Your task to perform on an android device: turn on showing notifications on the lock screen Image 0: 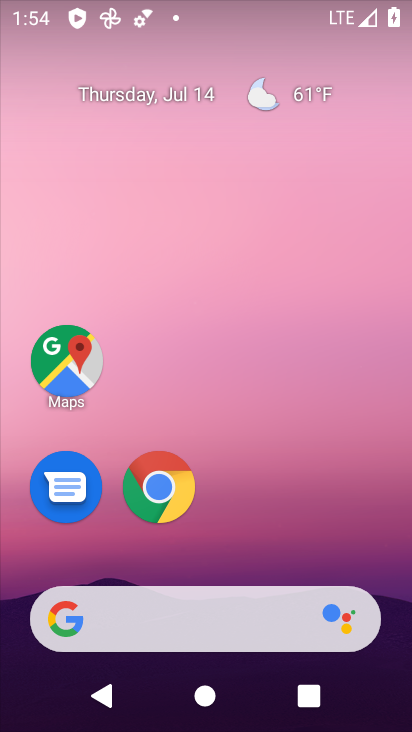
Step 0: drag from (372, 552) to (371, 160)
Your task to perform on an android device: turn on showing notifications on the lock screen Image 1: 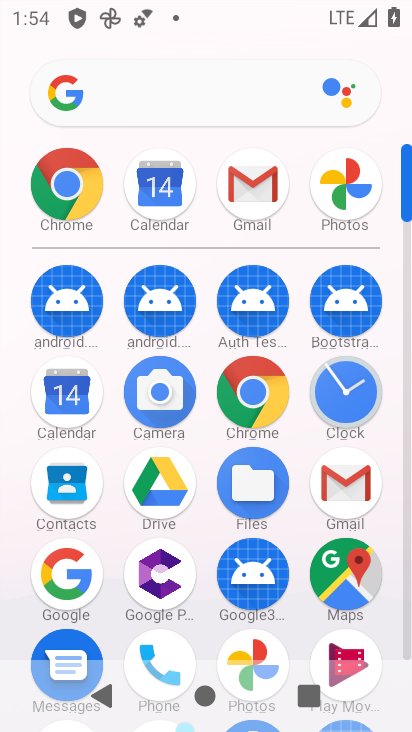
Step 1: drag from (388, 517) to (391, 211)
Your task to perform on an android device: turn on showing notifications on the lock screen Image 2: 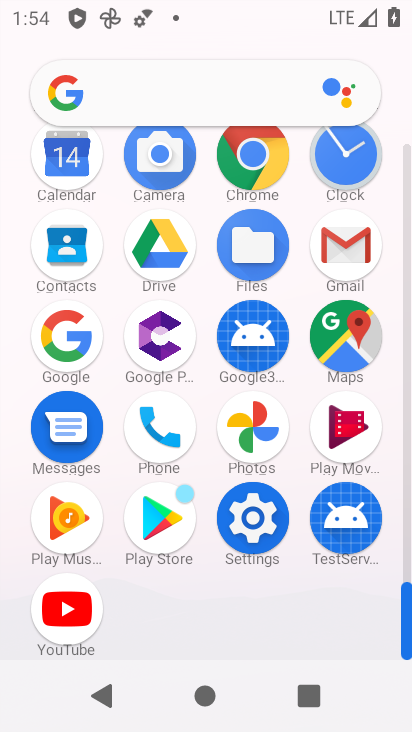
Step 2: click (252, 516)
Your task to perform on an android device: turn on showing notifications on the lock screen Image 3: 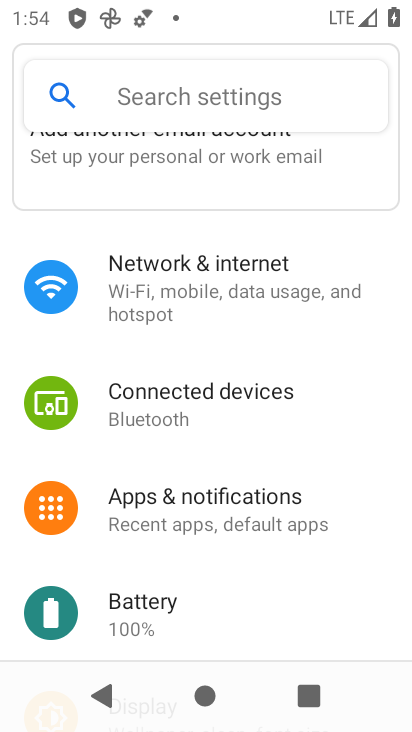
Step 3: drag from (323, 596) to (332, 471)
Your task to perform on an android device: turn on showing notifications on the lock screen Image 4: 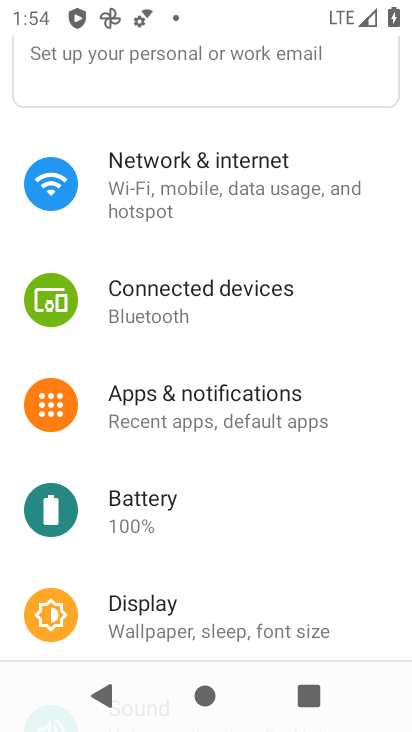
Step 4: drag from (346, 543) to (354, 442)
Your task to perform on an android device: turn on showing notifications on the lock screen Image 5: 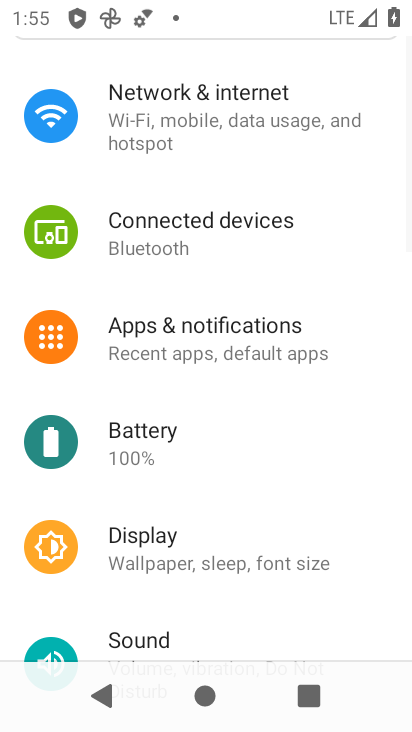
Step 5: drag from (361, 506) to (360, 420)
Your task to perform on an android device: turn on showing notifications on the lock screen Image 6: 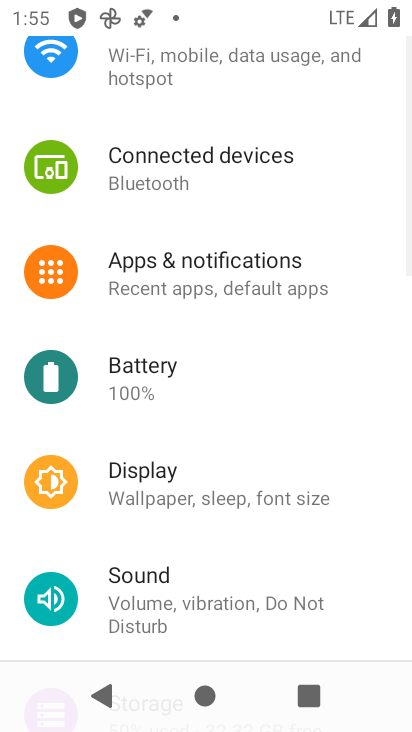
Step 6: drag from (361, 508) to (354, 402)
Your task to perform on an android device: turn on showing notifications on the lock screen Image 7: 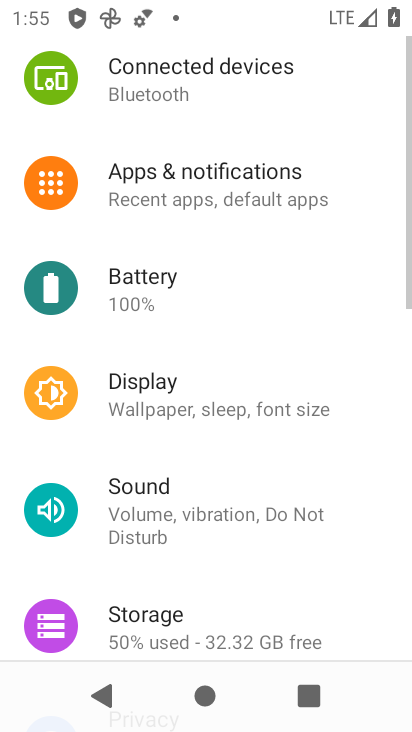
Step 7: drag from (364, 512) to (355, 392)
Your task to perform on an android device: turn on showing notifications on the lock screen Image 8: 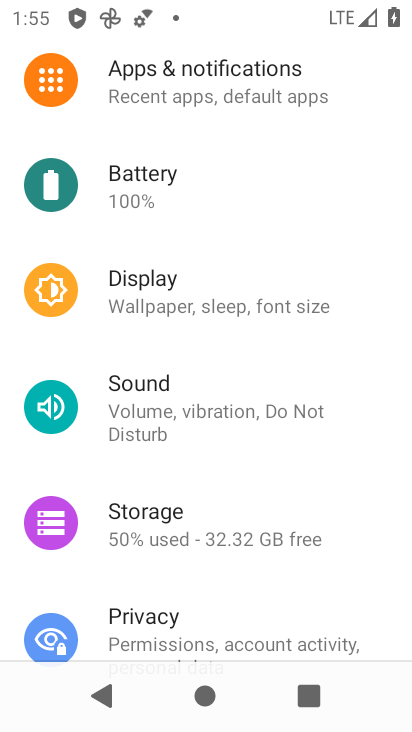
Step 8: drag from (354, 515) to (355, 439)
Your task to perform on an android device: turn on showing notifications on the lock screen Image 9: 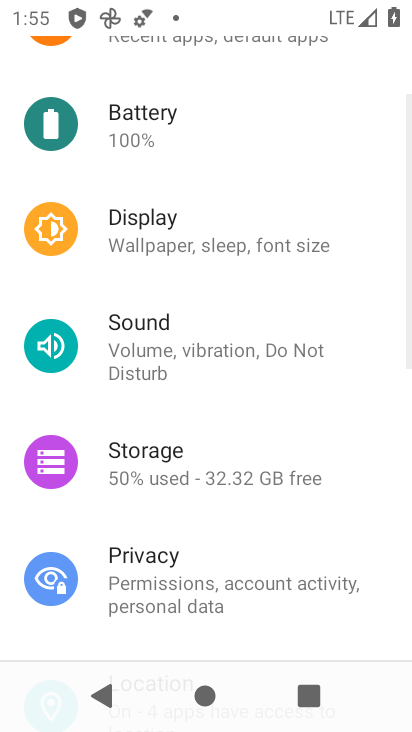
Step 9: drag from (362, 520) to (358, 432)
Your task to perform on an android device: turn on showing notifications on the lock screen Image 10: 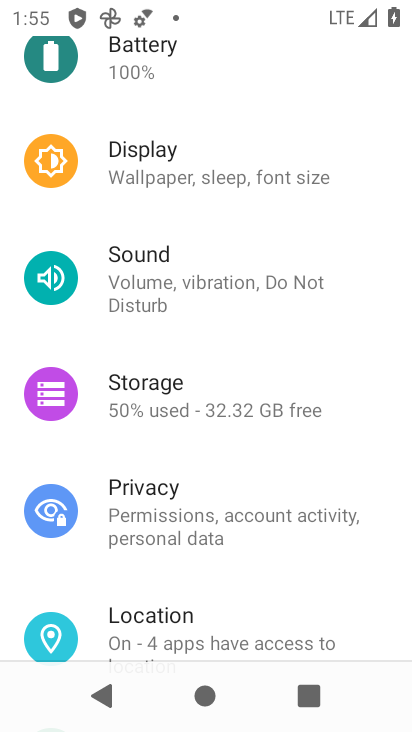
Step 10: drag from (369, 508) to (362, 391)
Your task to perform on an android device: turn on showing notifications on the lock screen Image 11: 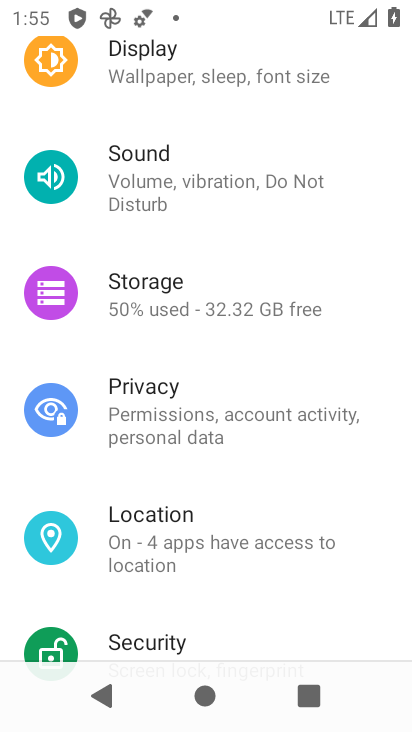
Step 11: drag from (371, 507) to (352, 392)
Your task to perform on an android device: turn on showing notifications on the lock screen Image 12: 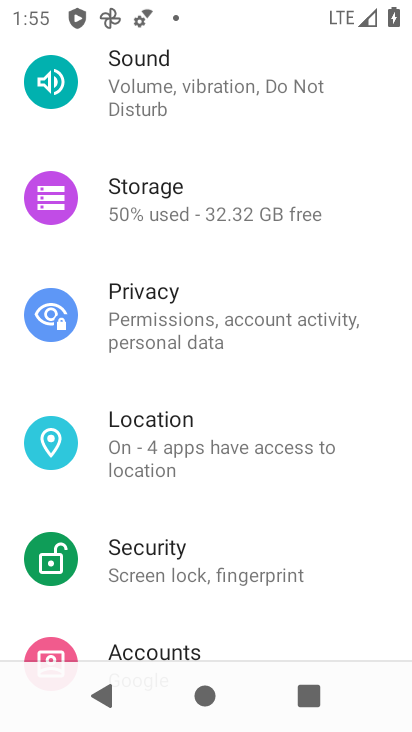
Step 12: drag from (349, 512) to (342, 422)
Your task to perform on an android device: turn on showing notifications on the lock screen Image 13: 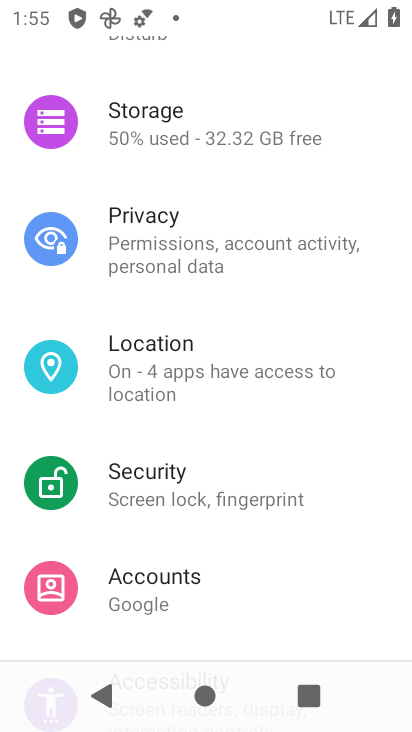
Step 13: drag from (344, 530) to (337, 418)
Your task to perform on an android device: turn on showing notifications on the lock screen Image 14: 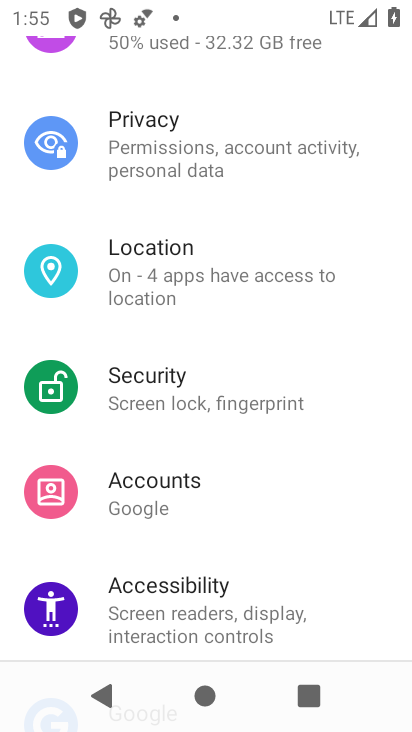
Step 14: drag from (337, 541) to (324, 445)
Your task to perform on an android device: turn on showing notifications on the lock screen Image 15: 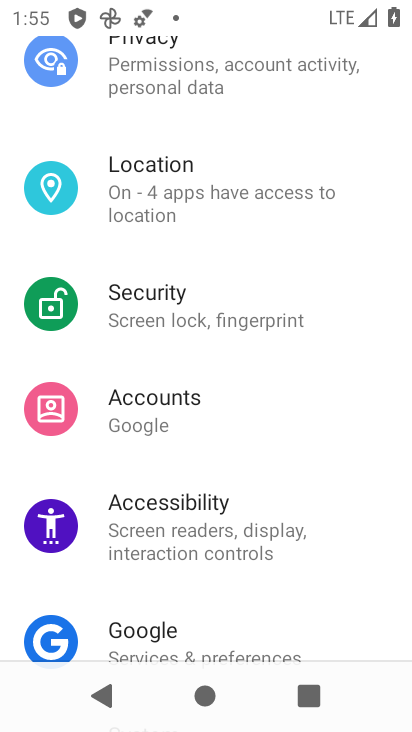
Step 15: drag from (353, 284) to (353, 405)
Your task to perform on an android device: turn on showing notifications on the lock screen Image 16: 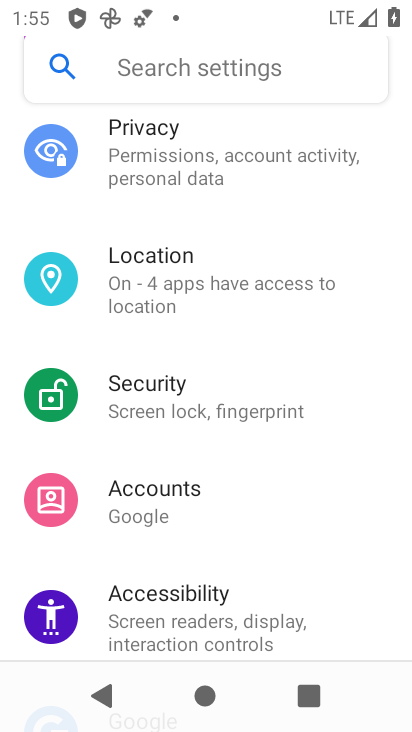
Step 16: drag from (338, 296) to (324, 435)
Your task to perform on an android device: turn on showing notifications on the lock screen Image 17: 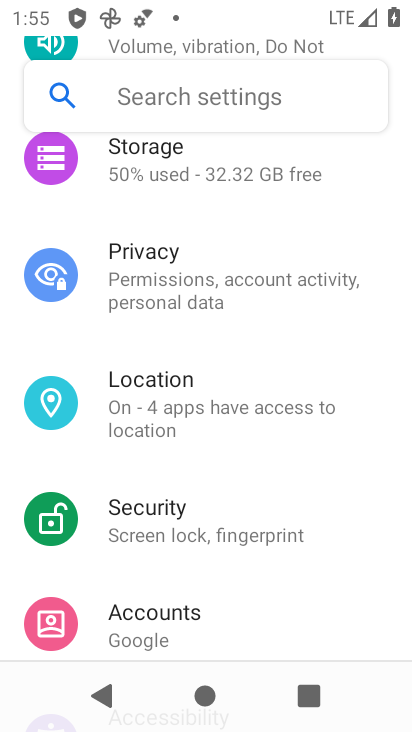
Step 17: drag from (313, 308) to (302, 430)
Your task to perform on an android device: turn on showing notifications on the lock screen Image 18: 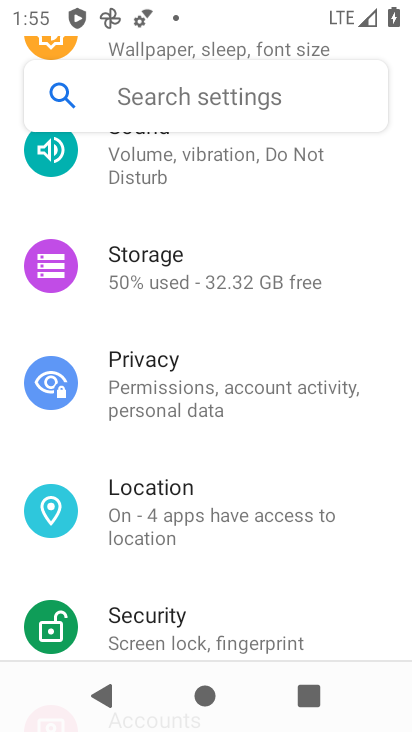
Step 18: drag from (357, 240) to (357, 386)
Your task to perform on an android device: turn on showing notifications on the lock screen Image 19: 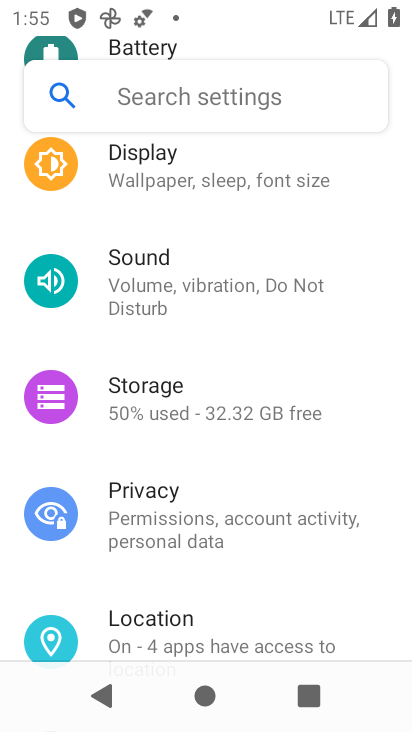
Step 19: drag from (348, 243) to (351, 361)
Your task to perform on an android device: turn on showing notifications on the lock screen Image 20: 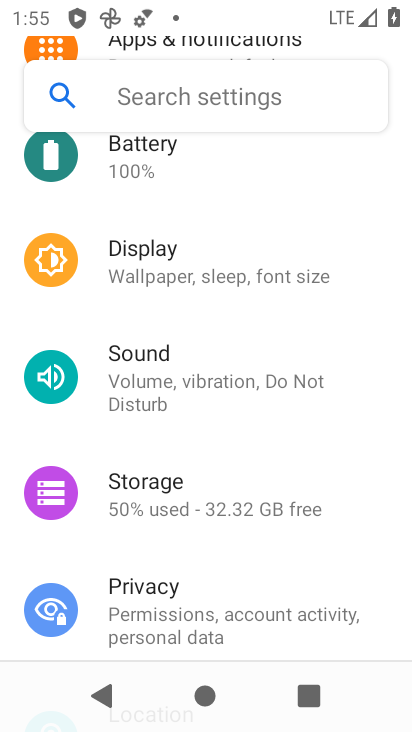
Step 20: drag from (368, 196) to (367, 379)
Your task to perform on an android device: turn on showing notifications on the lock screen Image 21: 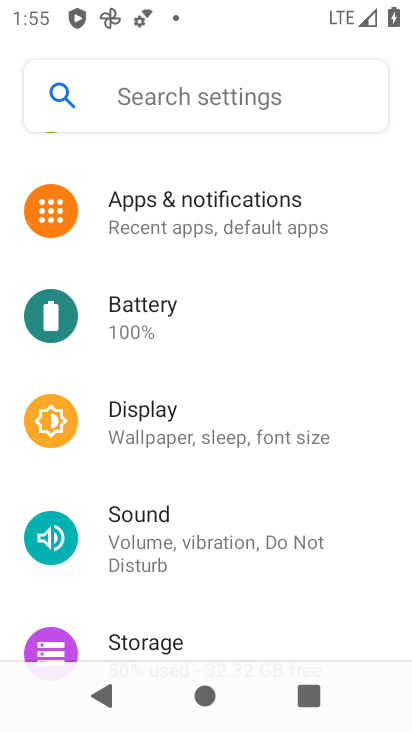
Step 21: drag from (364, 189) to (364, 359)
Your task to perform on an android device: turn on showing notifications on the lock screen Image 22: 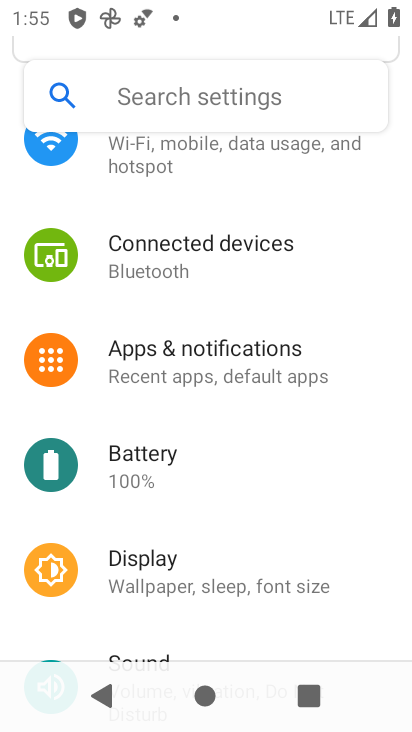
Step 22: click (302, 353)
Your task to perform on an android device: turn on showing notifications on the lock screen Image 23: 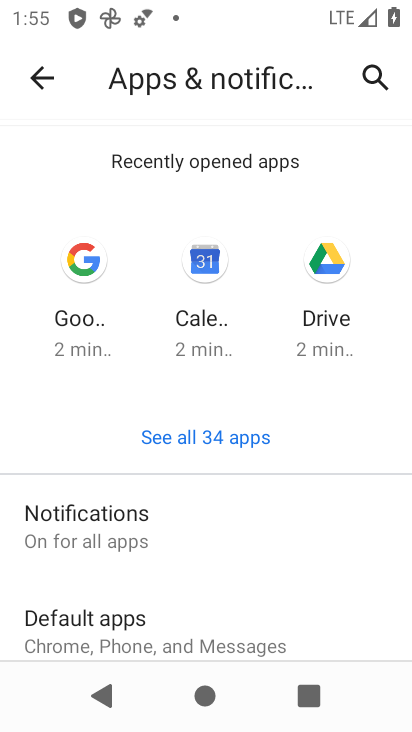
Step 23: drag from (294, 493) to (293, 375)
Your task to perform on an android device: turn on showing notifications on the lock screen Image 24: 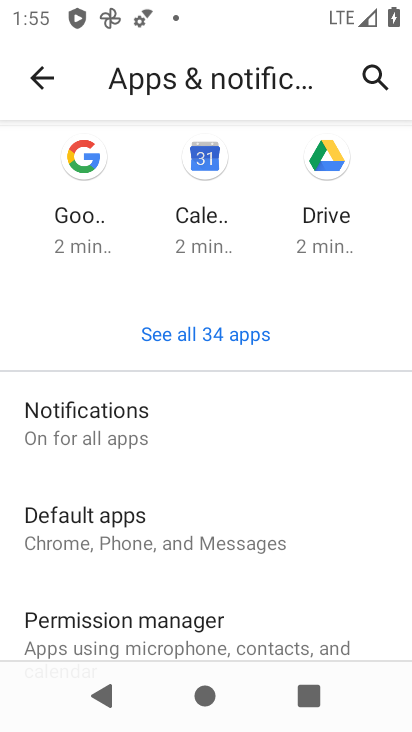
Step 24: drag from (317, 475) to (323, 362)
Your task to perform on an android device: turn on showing notifications on the lock screen Image 25: 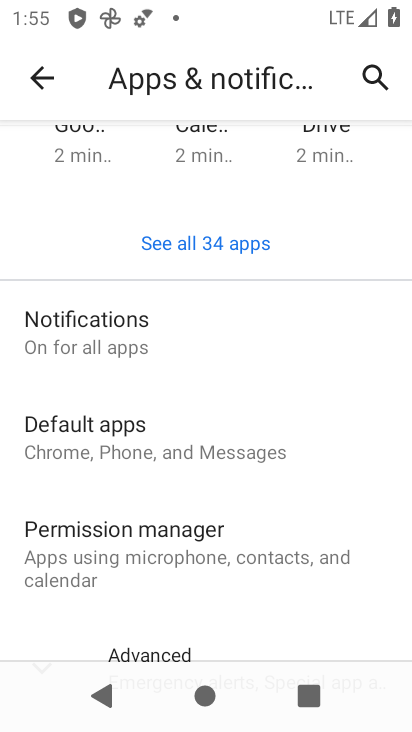
Step 25: click (147, 348)
Your task to perform on an android device: turn on showing notifications on the lock screen Image 26: 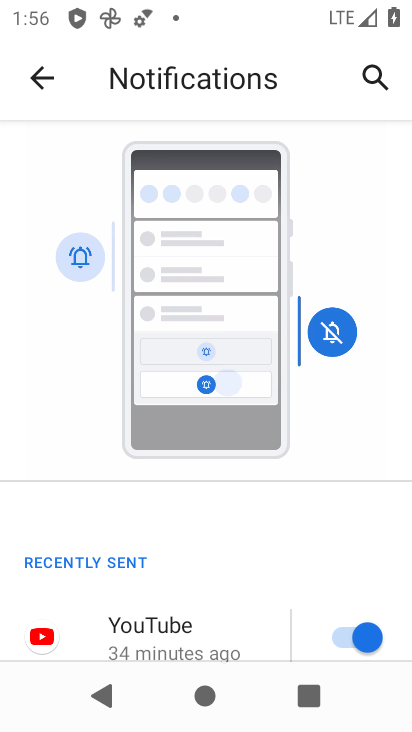
Step 26: drag from (215, 581) to (224, 493)
Your task to perform on an android device: turn on showing notifications on the lock screen Image 27: 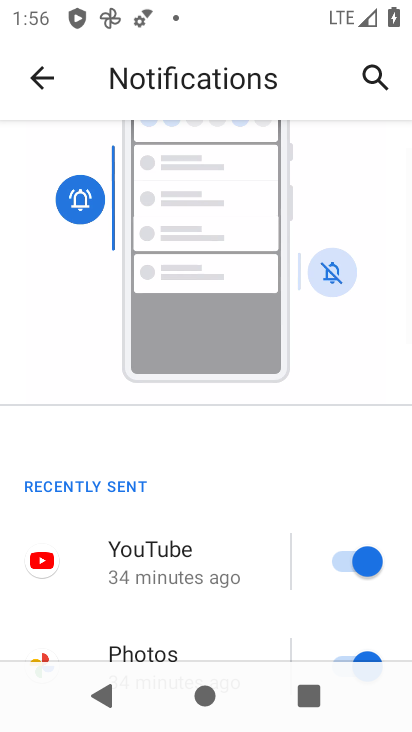
Step 27: drag from (252, 593) to (262, 476)
Your task to perform on an android device: turn on showing notifications on the lock screen Image 28: 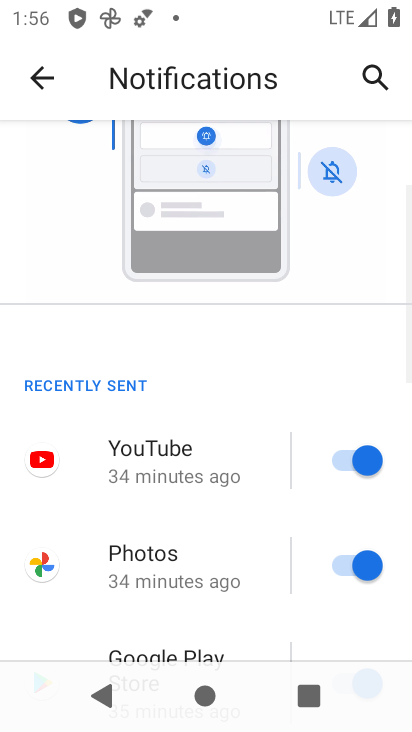
Step 28: drag from (260, 581) to (259, 480)
Your task to perform on an android device: turn on showing notifications on the lock screen Image 29: 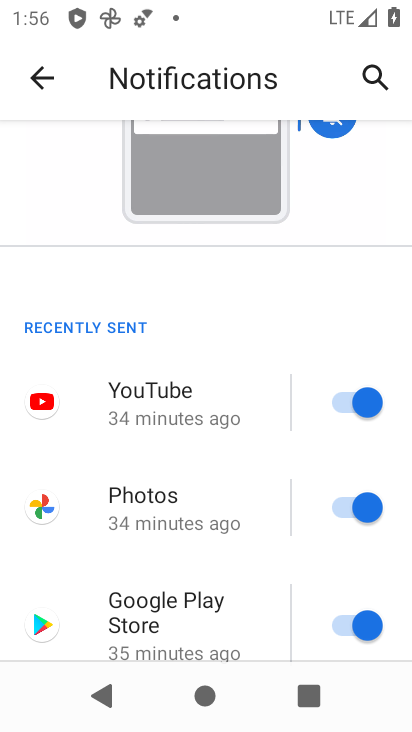
Step 29: drag from (260, 582) to (260, 477)
Your task to perform on an android device: turn on showing notifications on the lock screen Image 30: 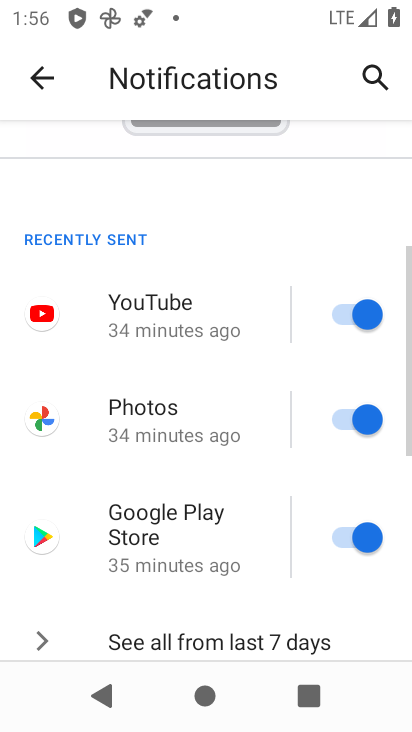
Step 30: drag from (252, 588) to (260, 450)
Your task to perform on an android device: turn on showing notifications on the lock screen Image 31: 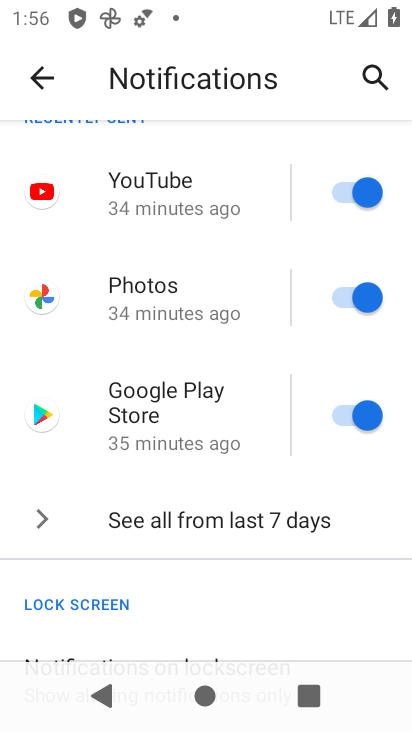
Step 31: drag from (247, 593) to (253, 508)
Your task to perform on an android device: turn on showing notifications on the lock screen Image 32: 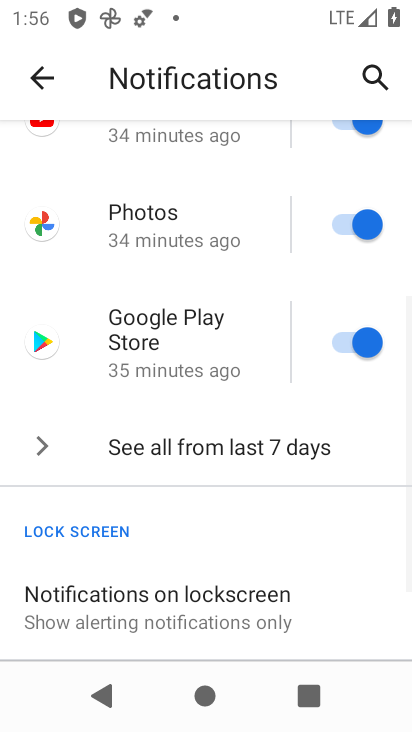
Step 32: drag from (266, 564) to (266, 498)
Your task to perform on an android device: turn on showing notifications on the lock screen Image 33: 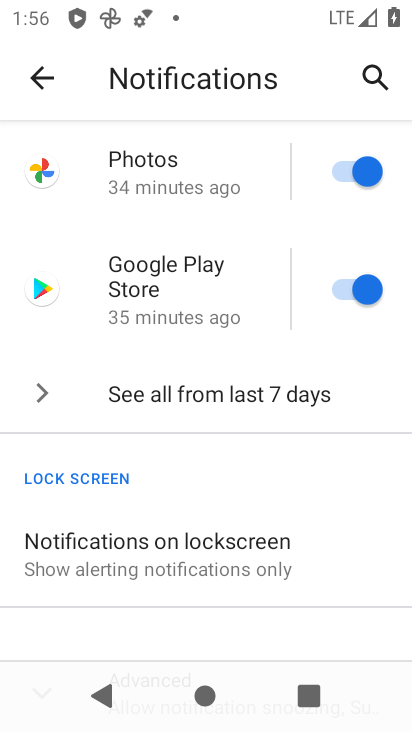
Step 33: drag from (273, 588) to (277, 487)
Your task to perform on an android device: turn on showing notifications on the lock screen Image 34: 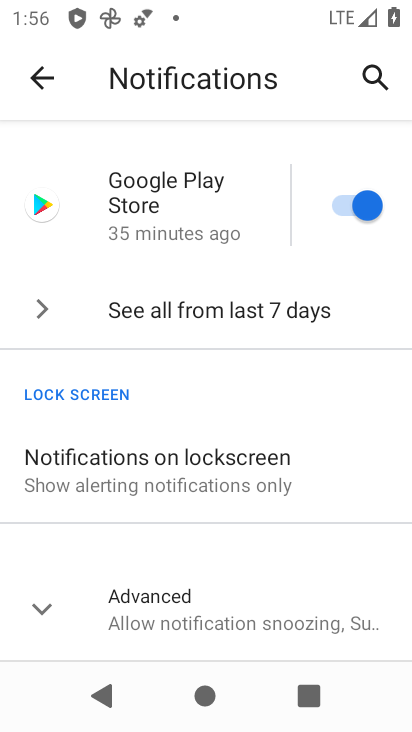
Step 34: click (237, 476)
Your task to perform on an android device: turn on showing notifications on the lock screen Image 35: 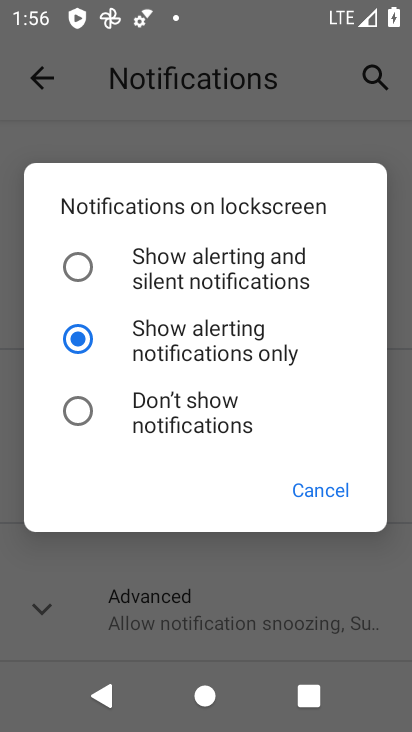
Step 35: task complete